Your task to perform on an android device: add a contact Image 0: 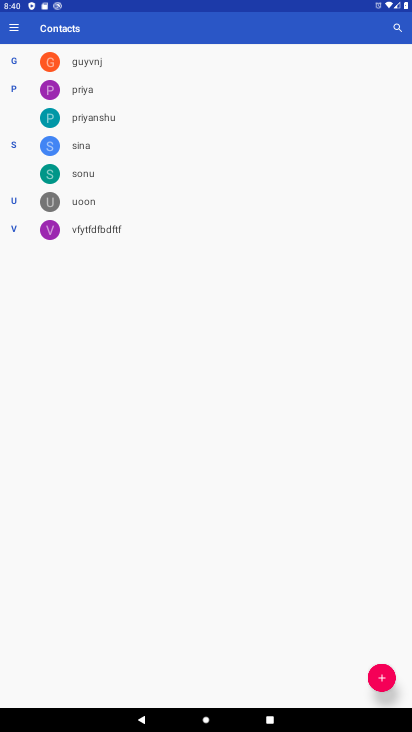
Step 0: press home button
Your task to perform on an android device: add a contact Image 1: 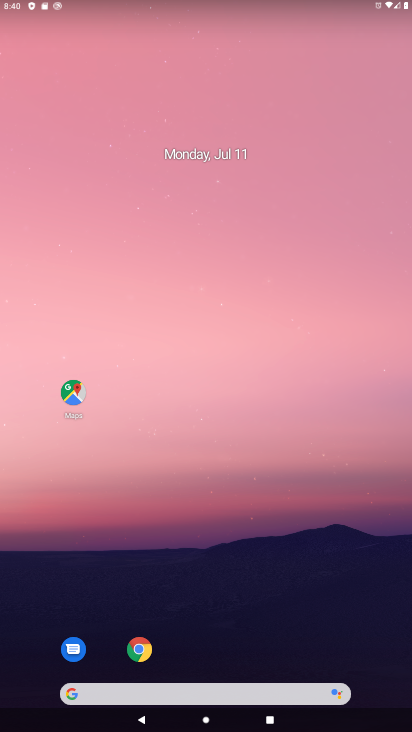
Step 1: drag from (185, 692) to (291, 100)
Your task to perform on an android device: add a contact Image 2: 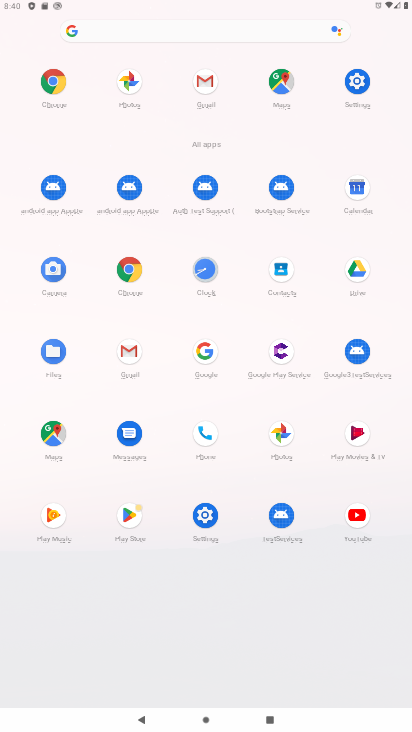
Step 2: click (281, 267)
Your task to perform on an android device: add a contact Image 3: 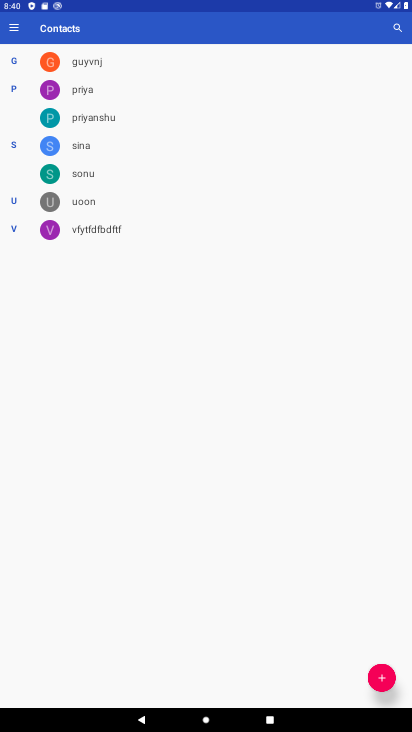
Step 3: click (382, 679)
Your task to perform on an android device: add a contact Image 4: 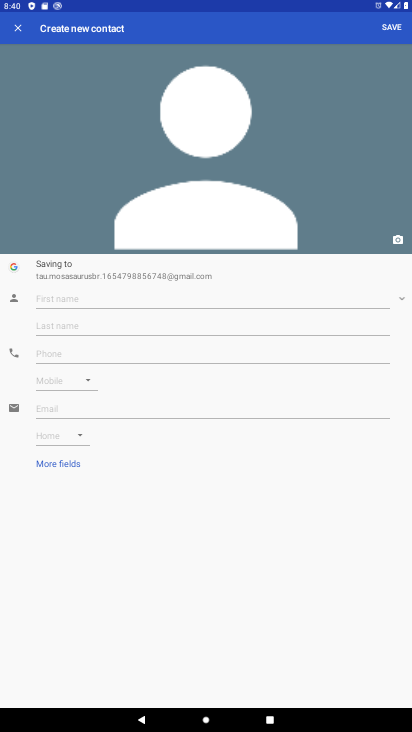
Step 4: click (177, 300)
Your task to perform on an android device: add a contact Image 5: 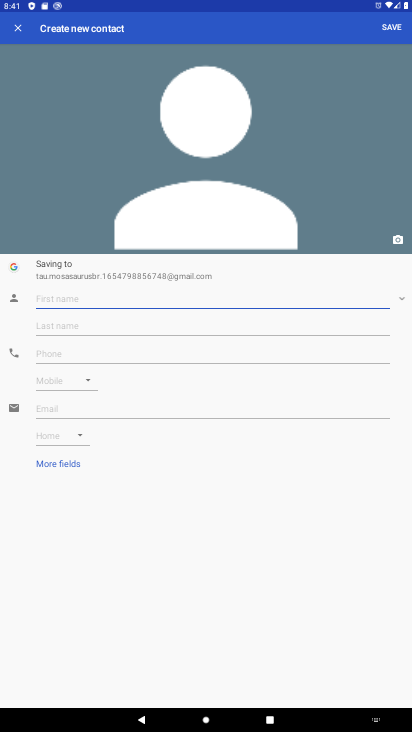
Step 5: type "Cristian"
Your task to perform on an android device: add a contact Image 6: 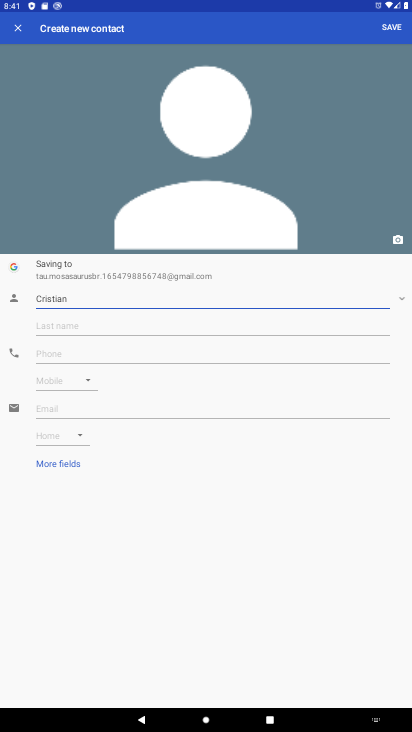
Step 6: click (85, 331)
Your task to perform on an android device: add a contact Image 7: 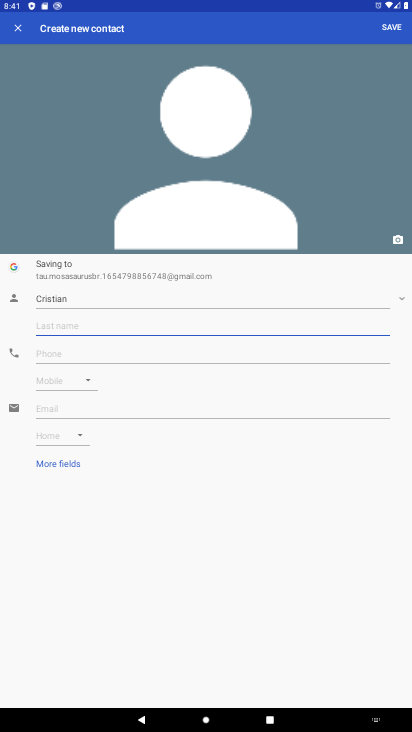
Step 7: type "sophindar"
Your task to perform on an android device: add a contact Image 8: 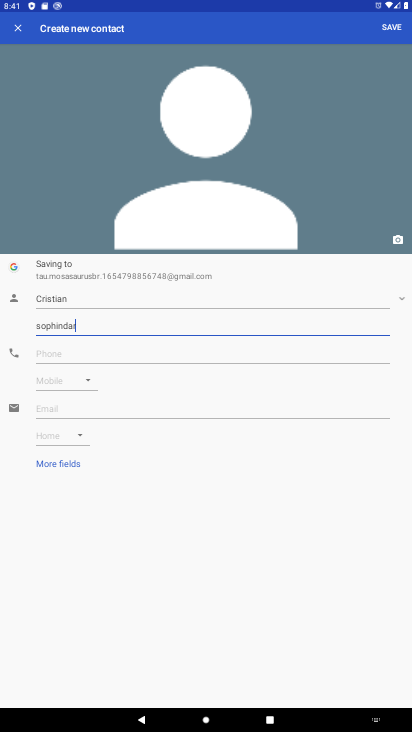
Step 8: click (78, 357)
Your task to perform on an android device: add a contact Image 9: 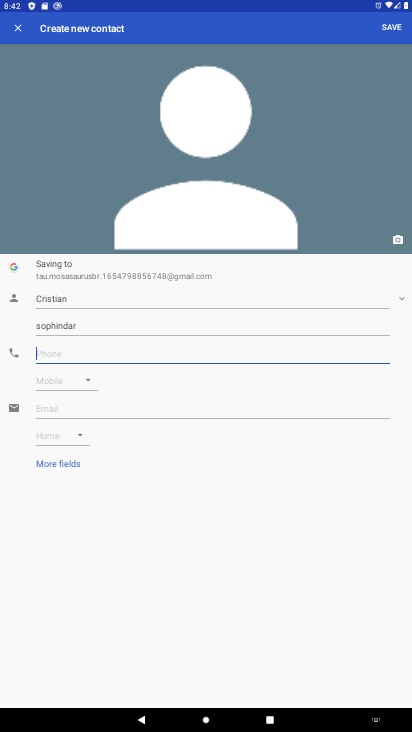
Step 9: type "0987654321"
Your task to perform on an android device: add a contact Image 10: 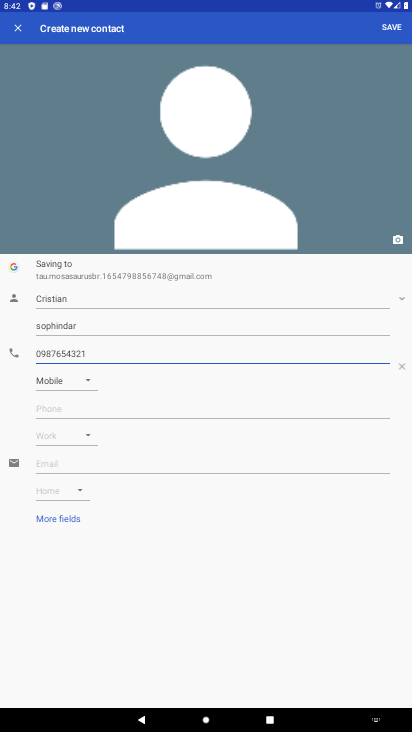
Step 10: click (396, 30)
Your task to perform on an android device: add a contact Image 11: 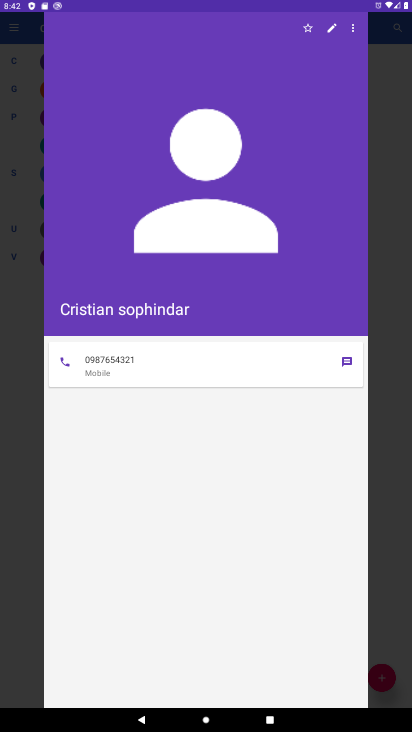
Step 11: task complete